Your task to perform on an android device: Go to settings Image 0: 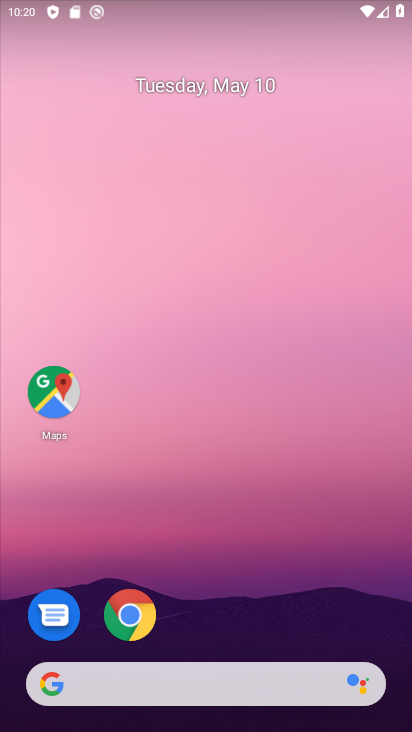
Step 0: drag from (302, 583) to (232, 87)
Your task to perform on an android device: Go to settings Image 1: 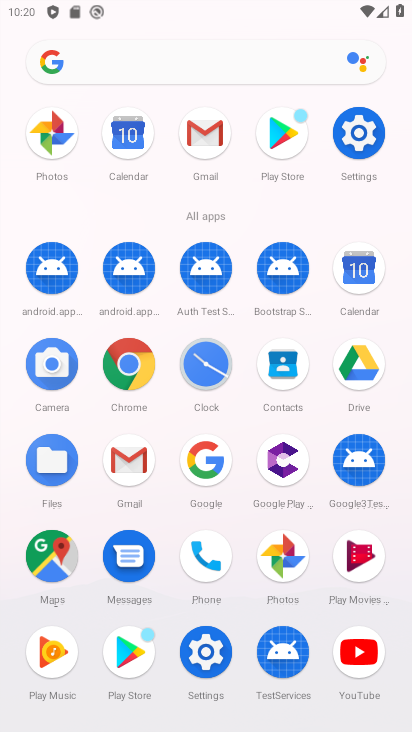
Step 1: click (357, 131)
Your task to perform on an android device: Go to settings Image 2: 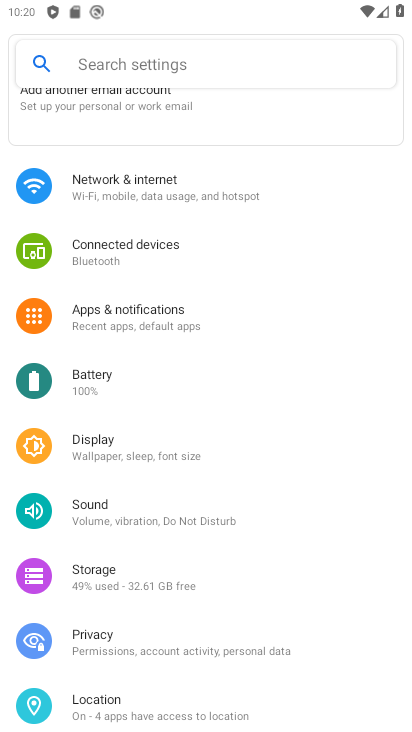
Step 2: task complete